Your task to perform on an android device: move a message to another label in the gmail app Image 0: 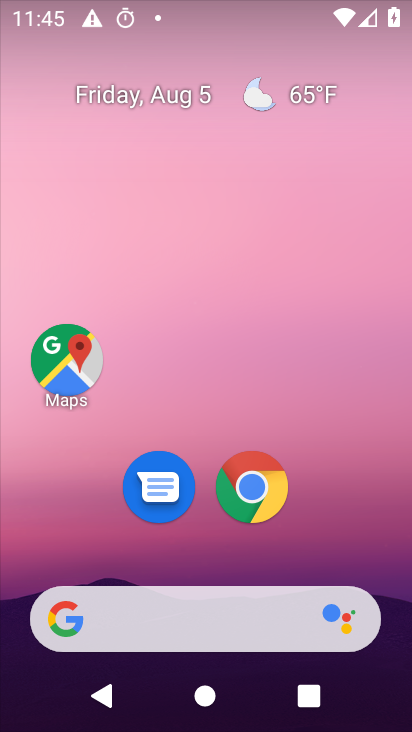
Step 0: drag from (209, 554) to (249, 97)
Your task to perform on an android device: move a message to another label in the gmail app Image 1: 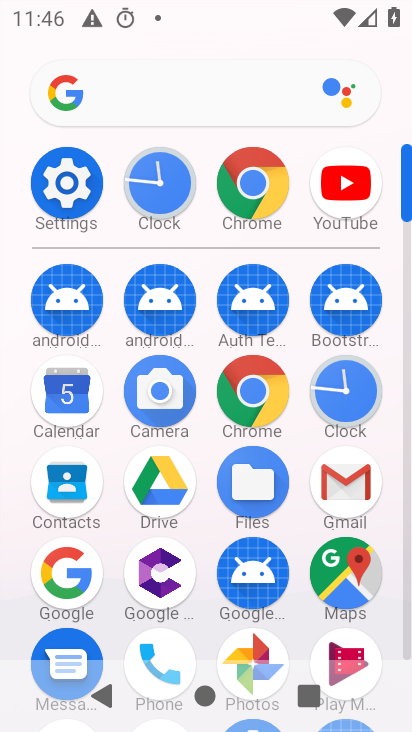
Step 1: click (339, 478)
Your task to perform on an android device: move a message to another label in the gmail app Image 2: 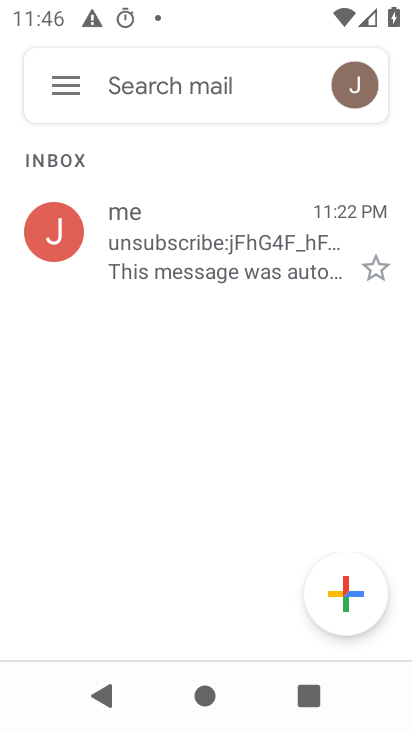
Step 2: click (54, 81)
Your task to perform on an android device: move a message to another label in the gmail app Image 3: 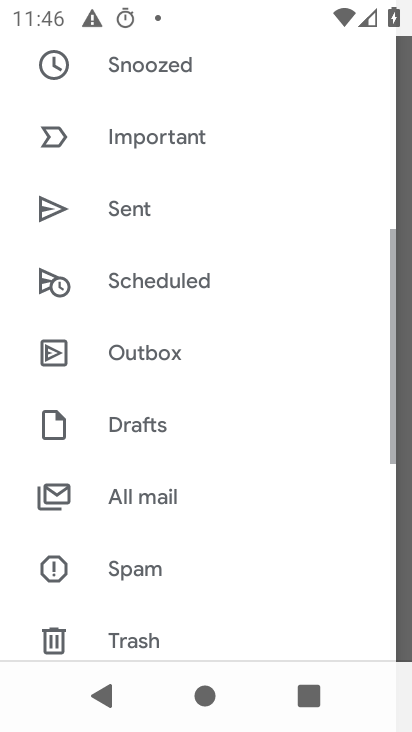
Step 3: click (145, 490)
Your task to perform on an android device: move a message to another label in the gmail app Image 4: 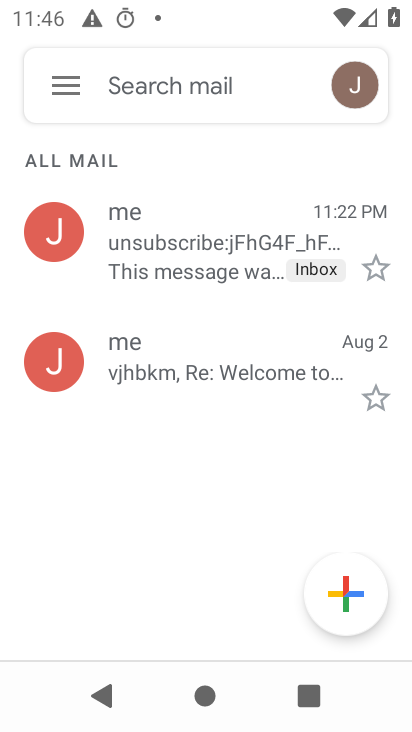
Step 4: click (169, 250)
Your task to perform on an android device: move a message to another label in the gmail app Image 5: 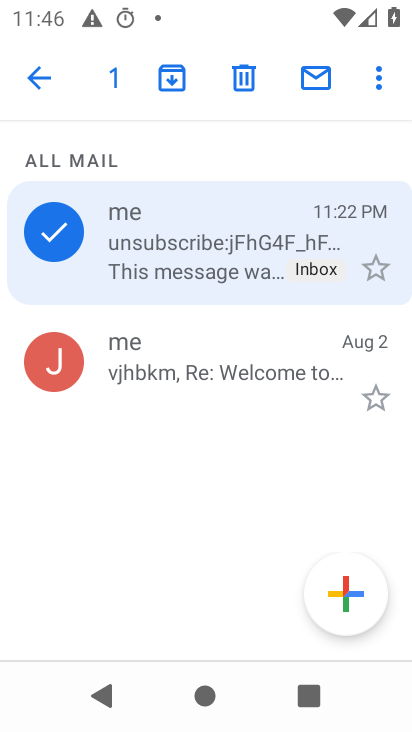
Step 5: click (378, 74)
Your task to perform on an android device: move a message to another label in the gmail app Image 6: 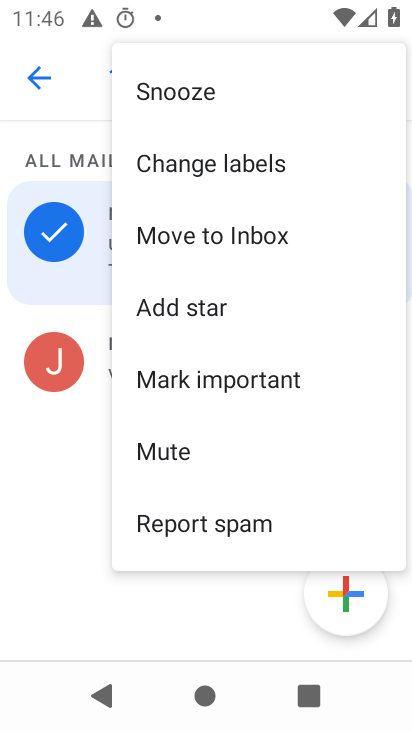
Step 6: click (238, 240)
Your task to perform on an android device: move a message to another label in the gmail app Image 7: 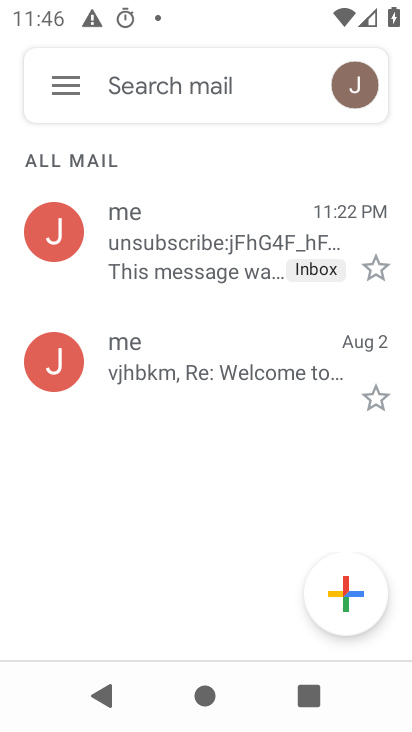
Step 7: task complete